Your task to perform on an android device: Search for sushi restaurants on Maps Image 0: 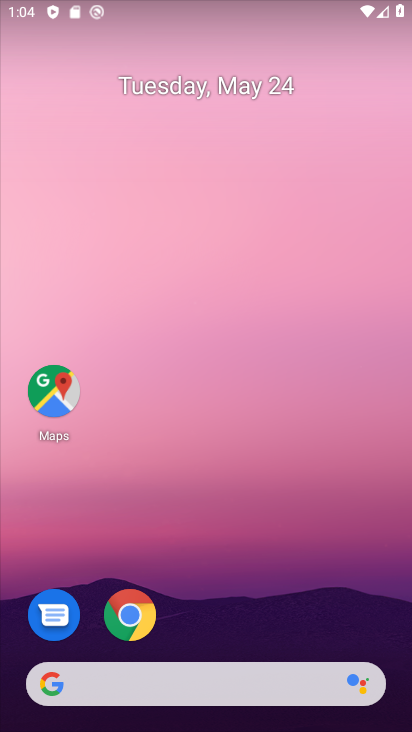
Step 0: press home button
Your task to perform on an android device: Search for sushi restaurants on Maps Image 1: 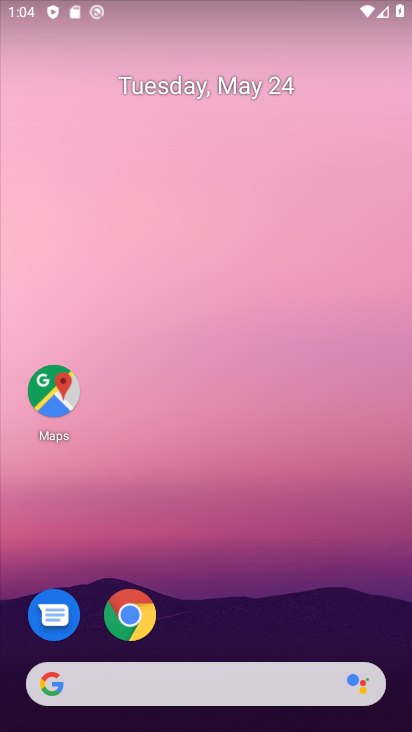
Step 1: click (49, 387)
Your task to perform on an android device: Search for sushi restaurants on Maps Image 2: 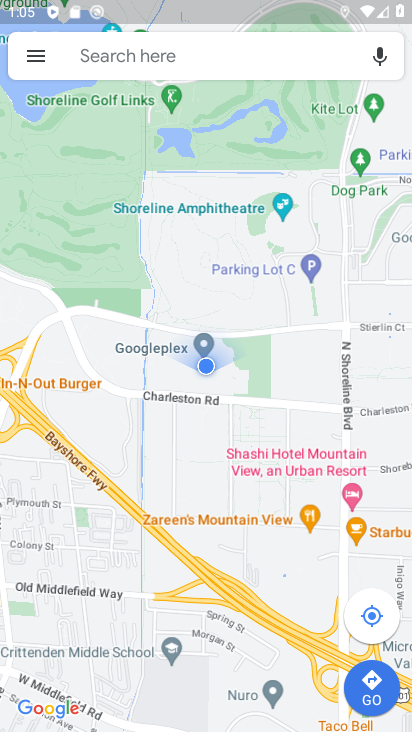
Step 2: click (157, 56)
Your task to perform on an android device: Search for sushi restaurants on Maps Image 3: 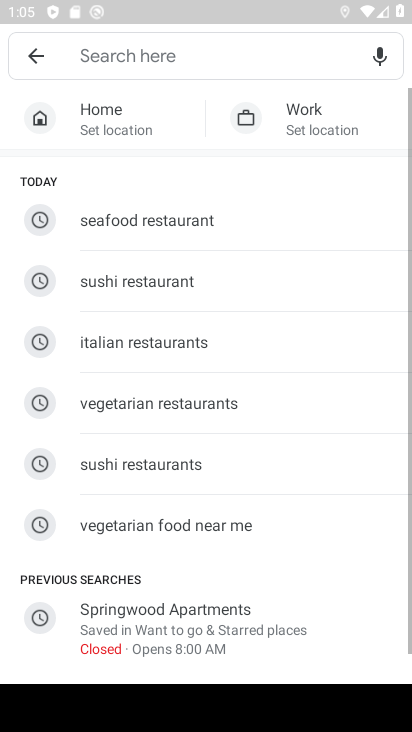
Step 3: click (134, 282)
Your task to perform on an android device: Search for sushi restaurants on Maps Image 4: 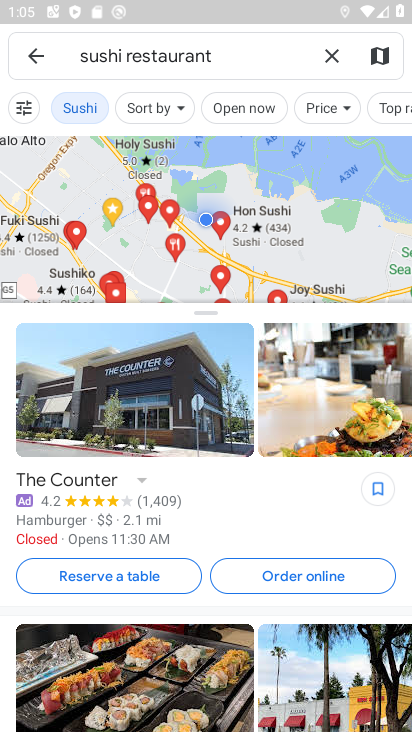
Step 4: task complete